Your task to perform on an android device: create a new album in the google photos Image 0: 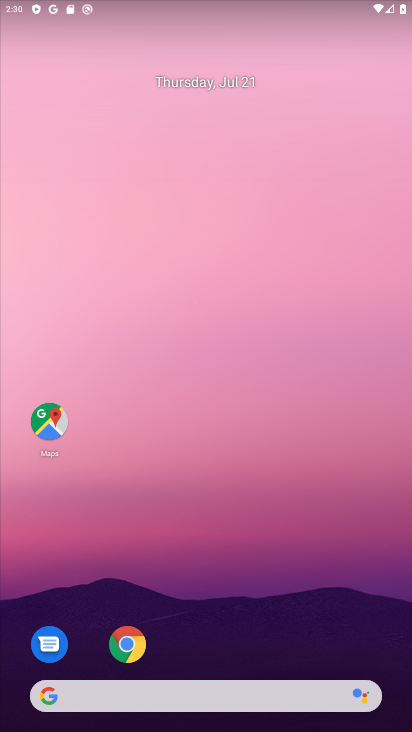
Step 0: drag from (225, 647) to (178, 94)
Your task to perform on an android device: create a new album in the google photos Image 1: 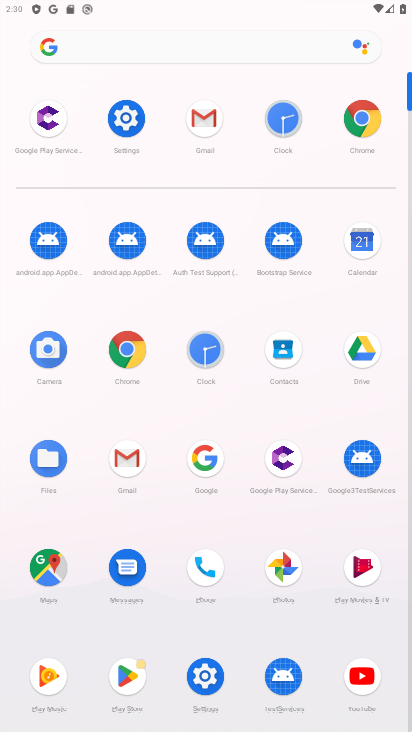
Step 1: click (277, 573)
Your task to perform on an android device: create a new album in the google photos Image 2: 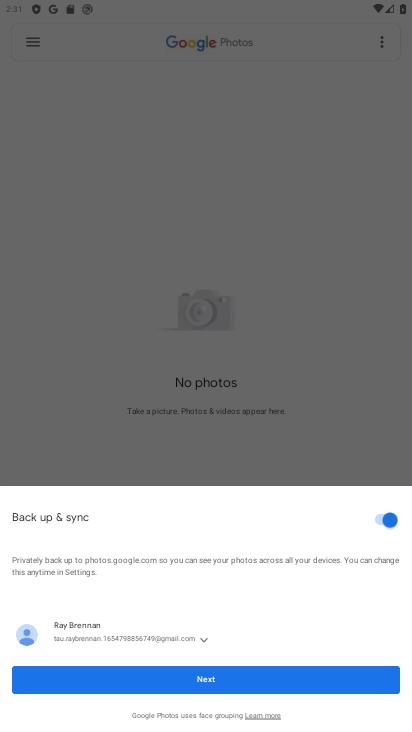
Step 2: click (264, 680)
Your task to perform on an android device: create a new album in the google photos Image 3: 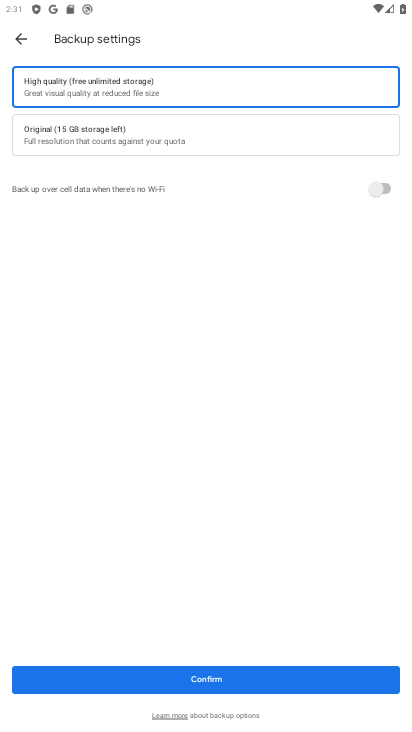
Step 3: click (19, 36)
Your task to perform on an android device: create a new album in the google photos Image 4: 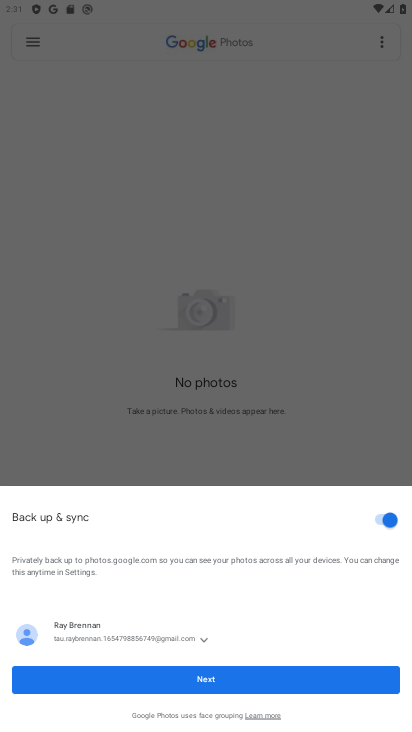
Step 4: click (201, 675)
Your task to perform on an android device: create a new album in the google photos Image 5: 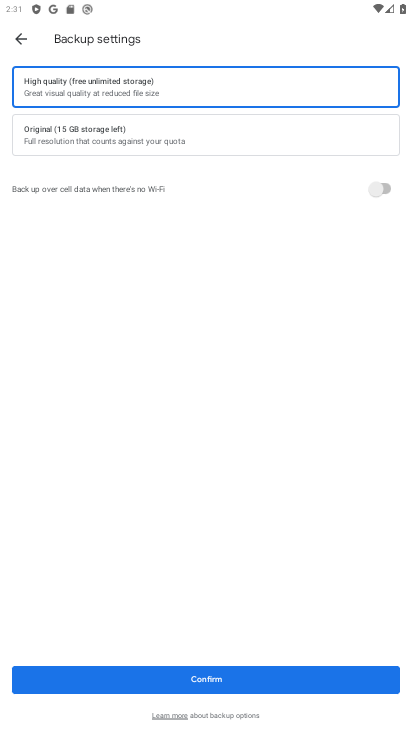
Step 5: click (16, 29)
Your task to perform on an android device: create a new album in the google photos Image 6: 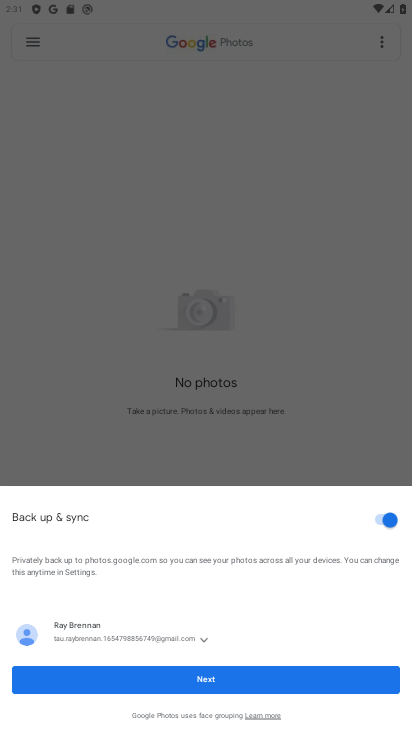
Step 6: click (215, 682)
Your task to perform on an android device: create a new album in the google photos Image 7: 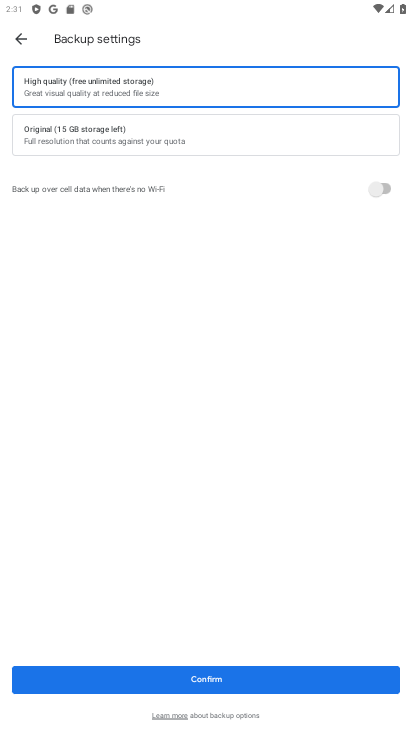
Step 7: click (241, 680)
Your task to perform on an android device: create a new album in the google photos Image 8: 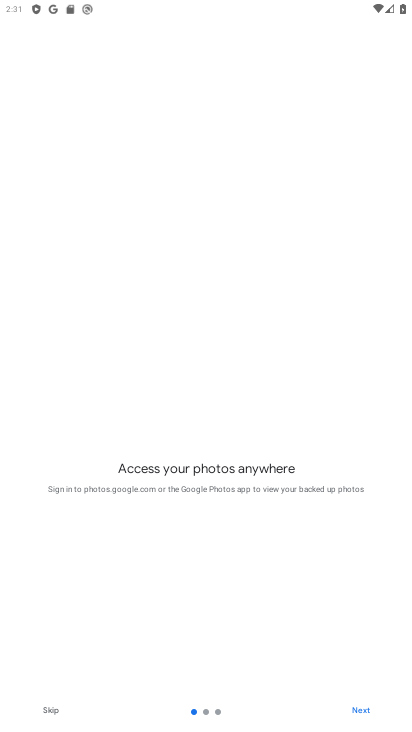
Step 8: click (365, 706)
Your task to perform on an android device: create a new album in the google photos Image 9: 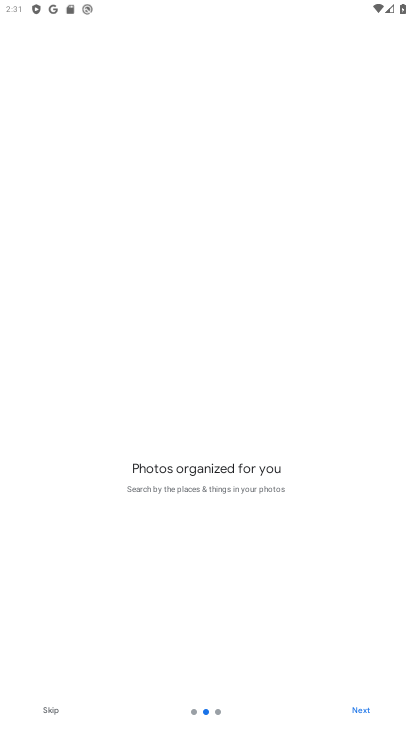
Step 9: click (365, 706)
Your task to perform on an android device: create a new album in the google photos Image 10: 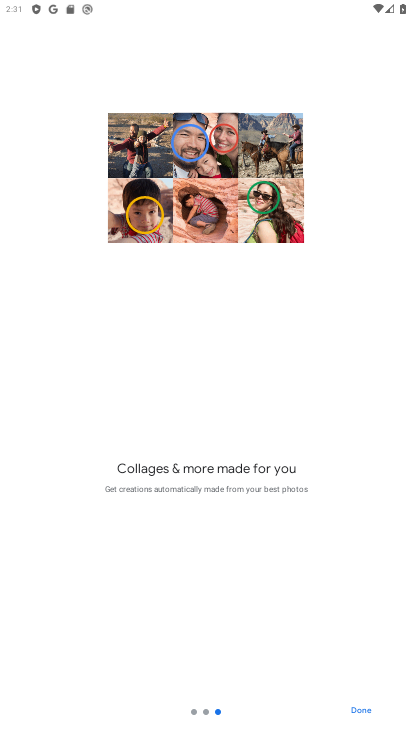
Step 10: click (365, 706)
Your task to perform on an android device: create a new album in the google photos Image 11: 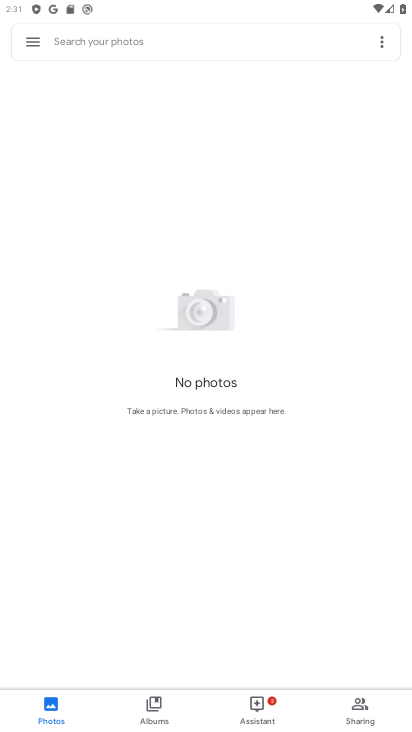
Step 11: click (270, 721)
Your task to perform on an android device: create a new album in the google photos Image 12: 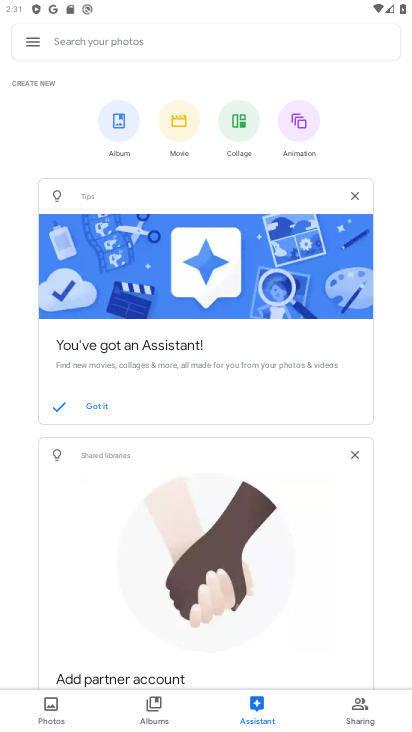
Step 12: click (114, 134)
Your task to perform on an android device: create a new album in the google photos Image 13: 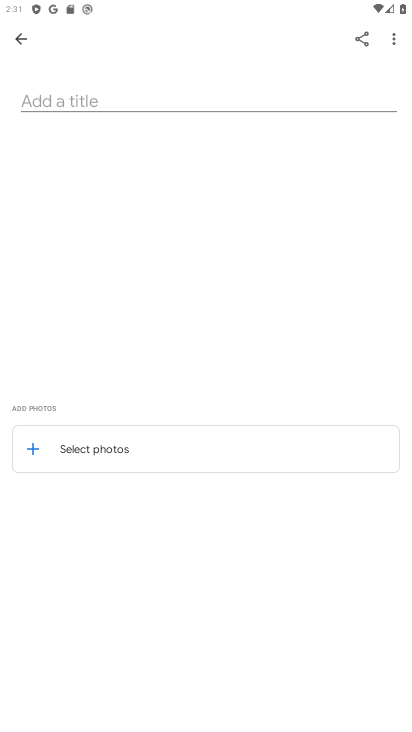
Step 13: click (198, 97)
Your task to perform on an android device: create a new album in the google photos Image 14: 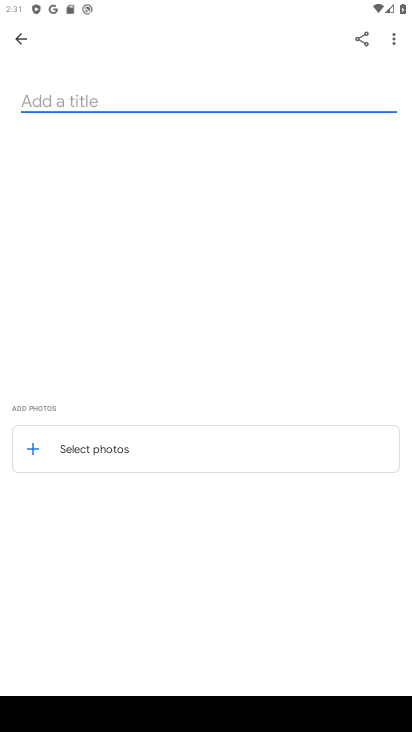
Step 14: type "jvjhvj"
Your task to perform on an android device: create a new album in the google photos Image 15: 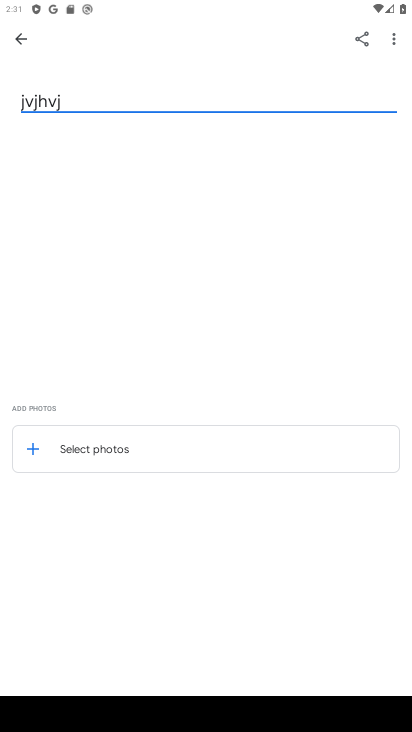
Step 15: click (130, 465)
Your task to perform on an android device: create a new album in the google photos Image 16: 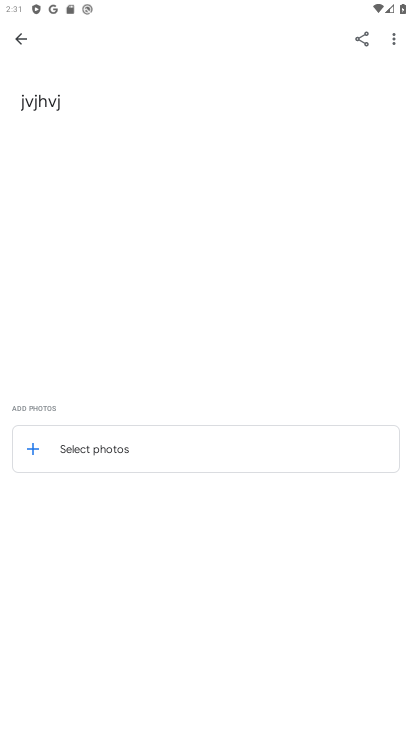
Step 16: click (118, 457)
Your task to perform on an android device: create a new album in the google photos Image 17: 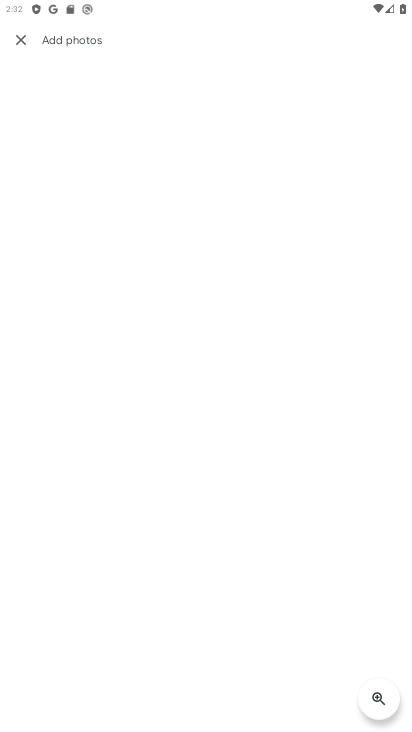
Step 17: task complete